Your task to perform on an android device: Open the Play Movies app and select the watchlist tab. Image 0: 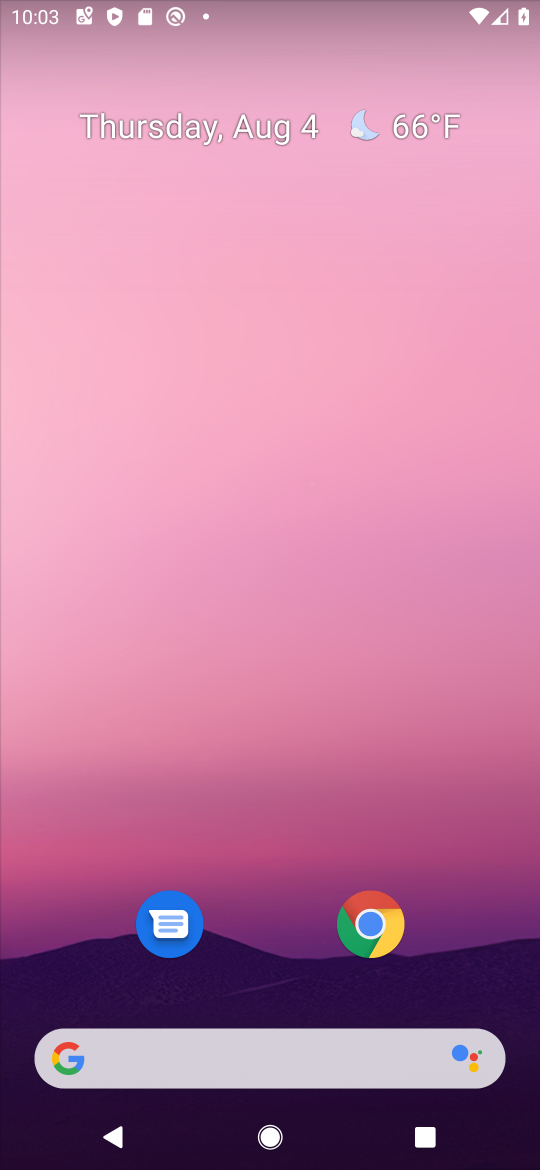
Step 0: drag from (264, 812) to (286, 77)
Your task to perform on an android device: Open the Play Movies app and select the watchlist tab. Image 1: 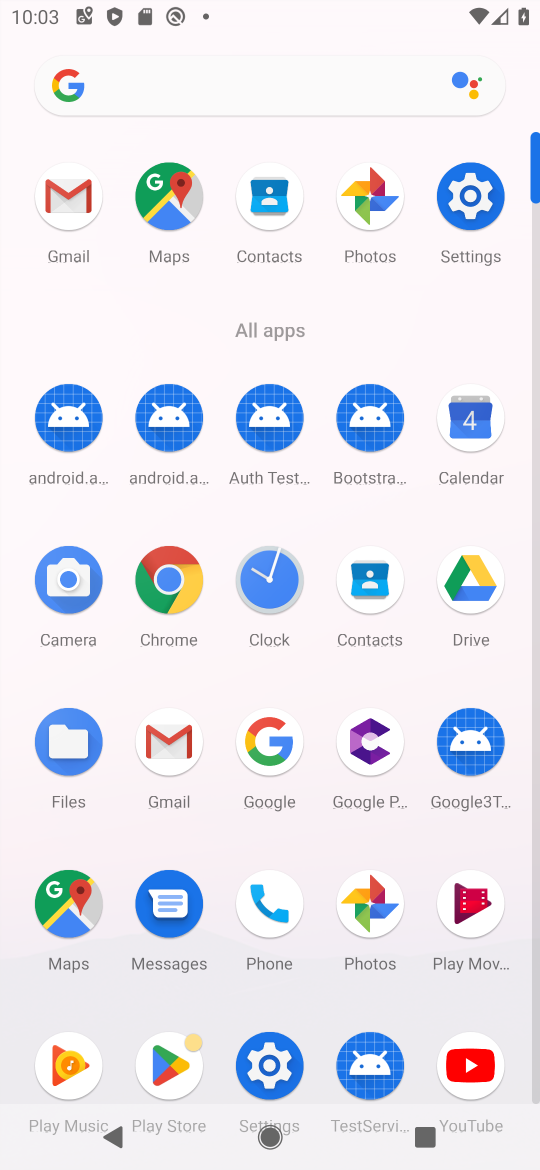
Step 1: click (469, 882)
Your task to perform on an android device: Open the Play Movies app and select the watchlist tab. Image 2: 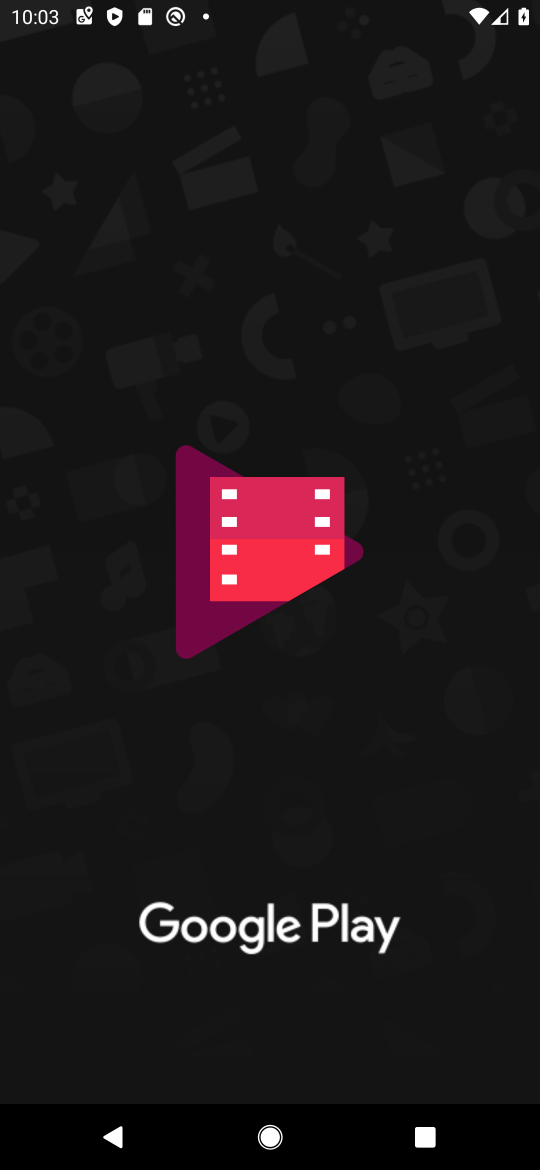
Step 2: task complete